Your task to perform on an android device: check out phone information Image 0: 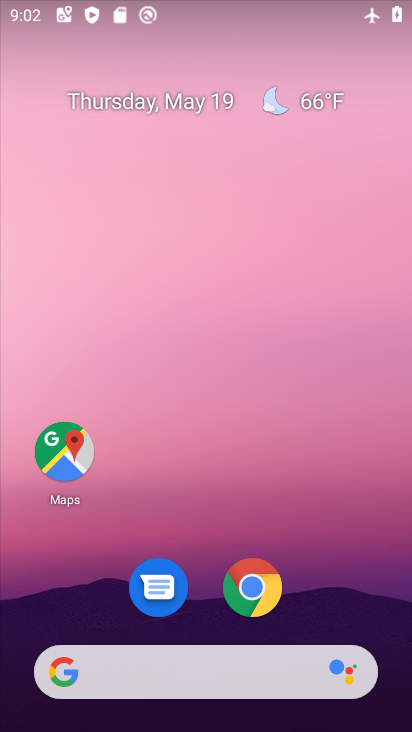
Step 0: press home button
Your task to perform on an android device: check out phone information Image 1: 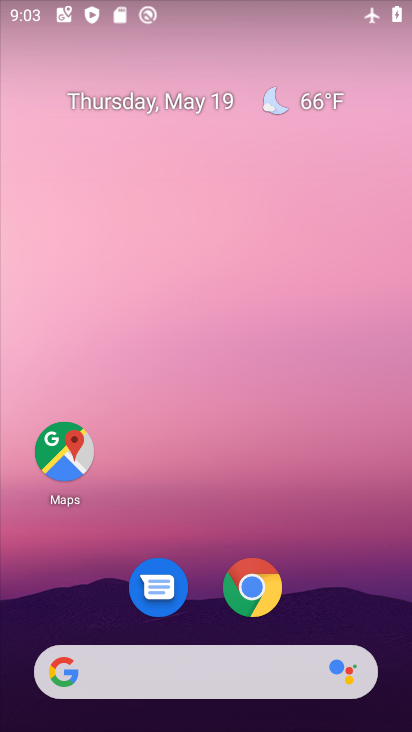
Step 1: drag from (275, 695) to (216, 205)
Your task to perform on an android device: check out phone information Image 2: 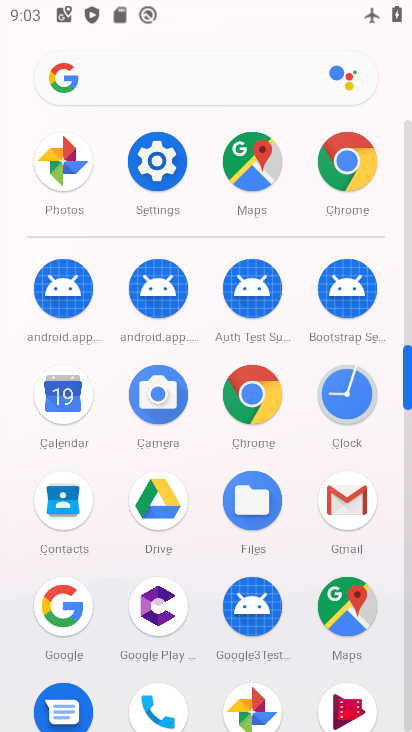
Step 2: click (156, 174)
Your task to perform on an android device: check out phone information Image 3: 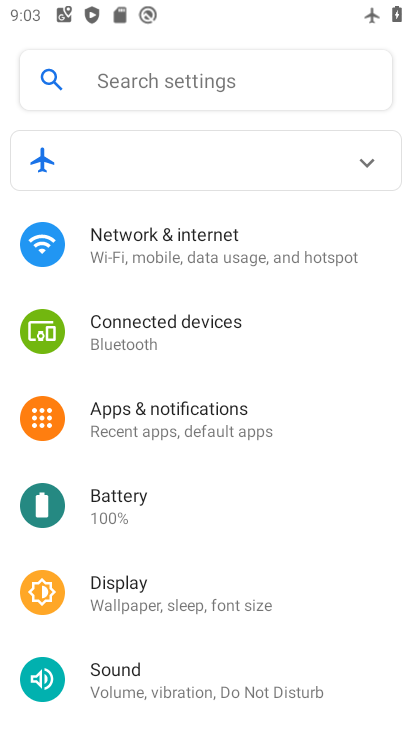
Step 3: click (174, 88)
Your task to perform on an android device: check out phone information Image 4: 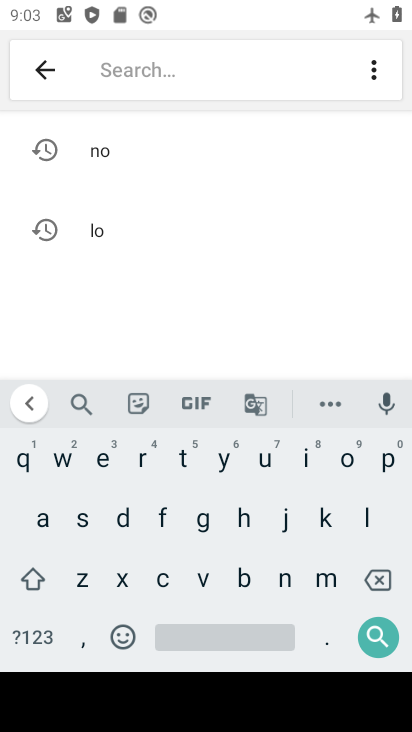
Step 4: click (40, 525)
Your task to perform on an android device: check out phone information Image 5: 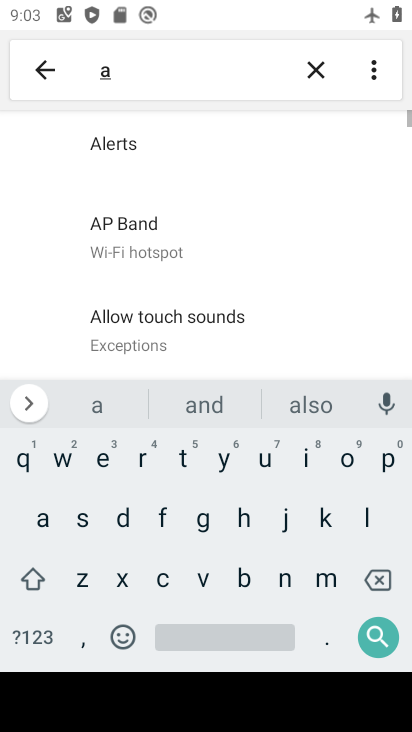
Step 5: click (243, 582)
Your task to perform on an android device: check out phone information Image 6: 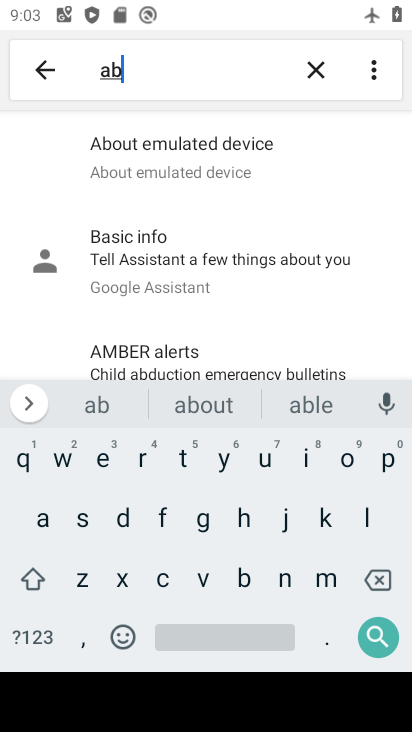
Step 6: click (154, 165)
Your task to perform on an android device: check out phone information Image 7: 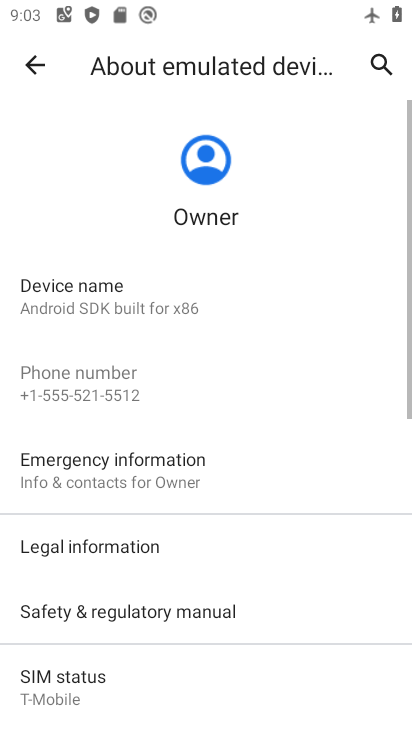
Step 7: task complete